Your task to perform on an android device: change keyboard looks Image 0: 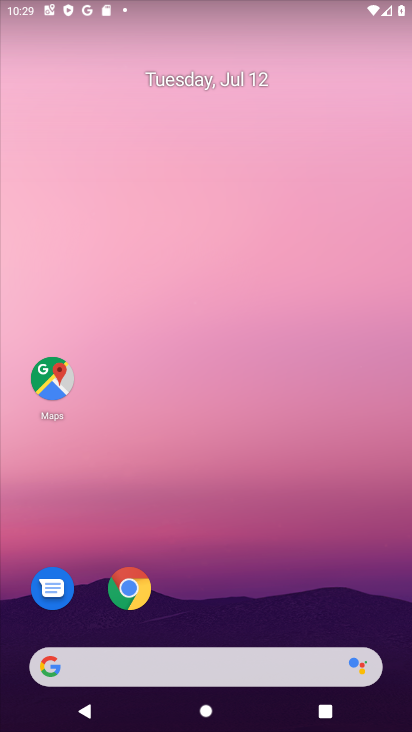
Step 0: drag from (231, 590) to (243, 14)
Your task to perform on an android device: change keyboard looks Image 1: 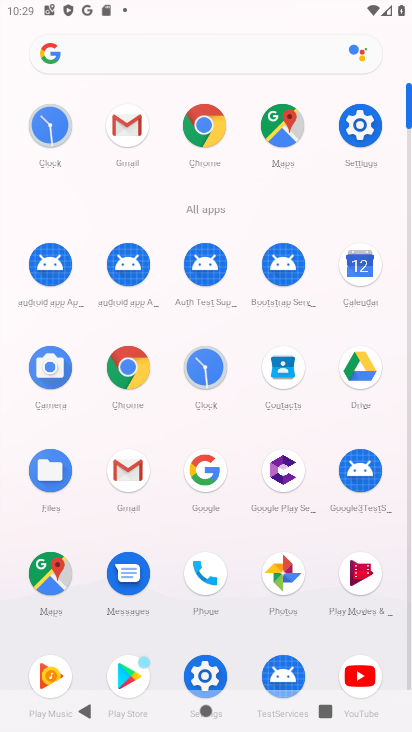
Step 1: click (202, 675)
Your task to perform on an android device: change keyboard looks Image 2: 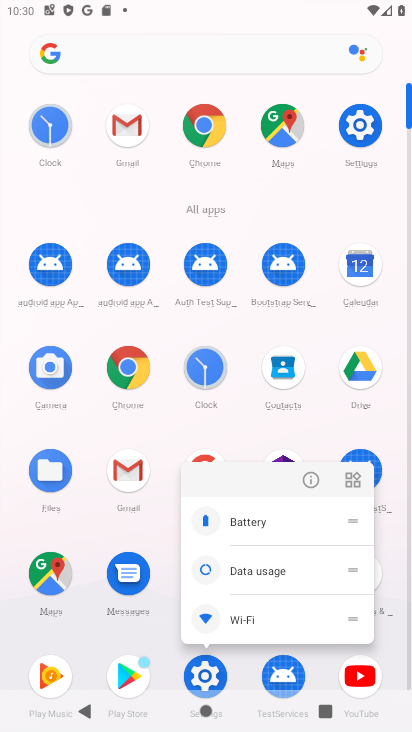
Step 2: click (191, 675)
Your task to perform on an android device: change keyboard looks Image 3: 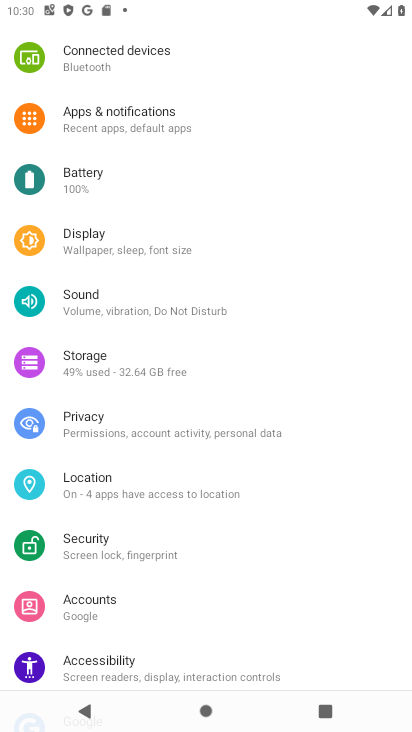
Step 3: drag from (179, 572) to (159, 136)
Your task to perform on an android device: change keyboard looks Image 4: 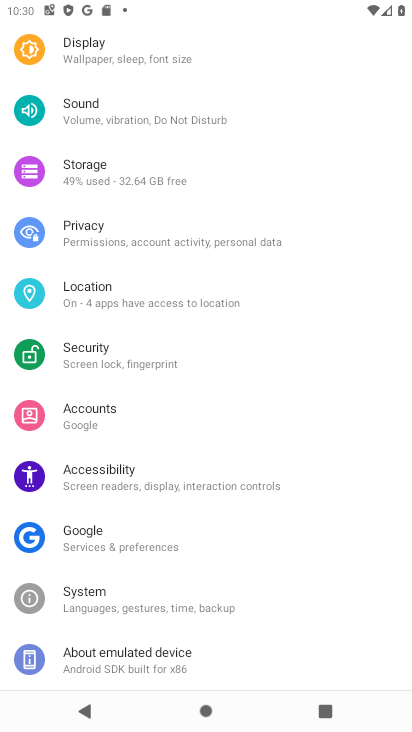
Step 4: click (79, 606)
Your task to perform on an android device: change keyboard looks Image 5: 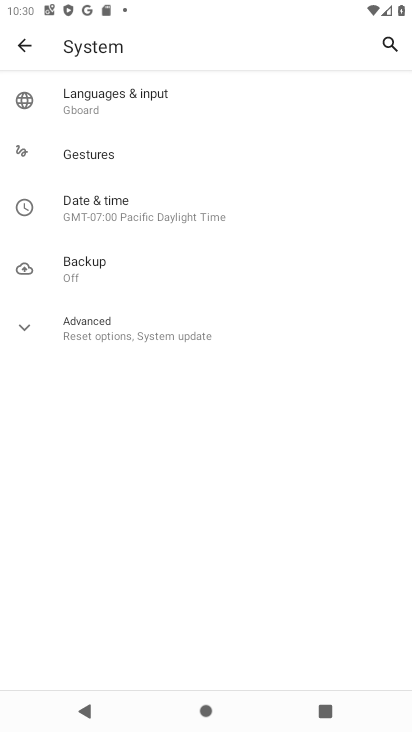
Step 5: click (91, 107)
Your task to perform on an android device: change keyboard looks Image 6: 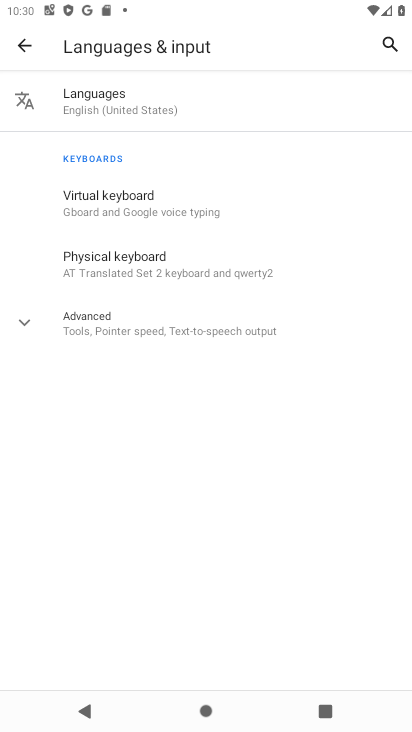
Step 6: click (110, 188)
Your task to perform on an android device: change keyboard looks Image 7: 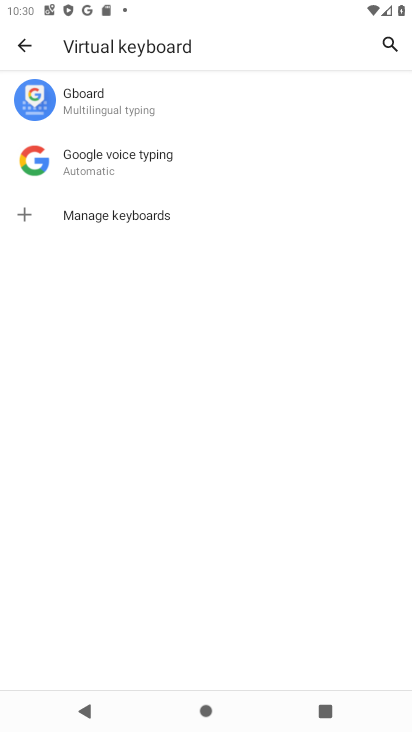
Step 7: click (101, 104)
Your task to perform on an android device: change keyboard looks Image 8: 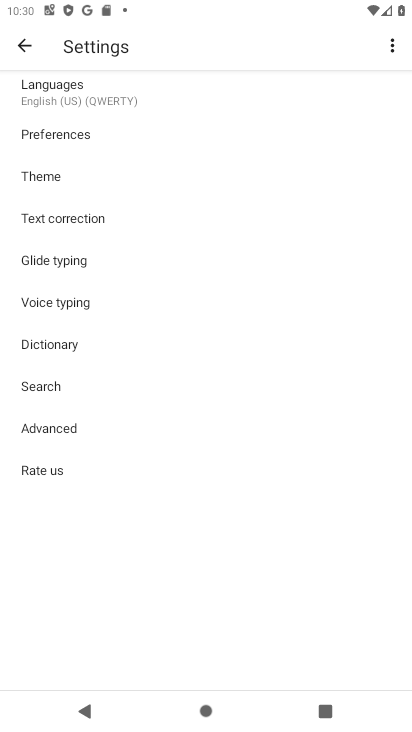
Step 8: click (41, 170)
Your task to perform on an android device: change keyboard looks Image 9: 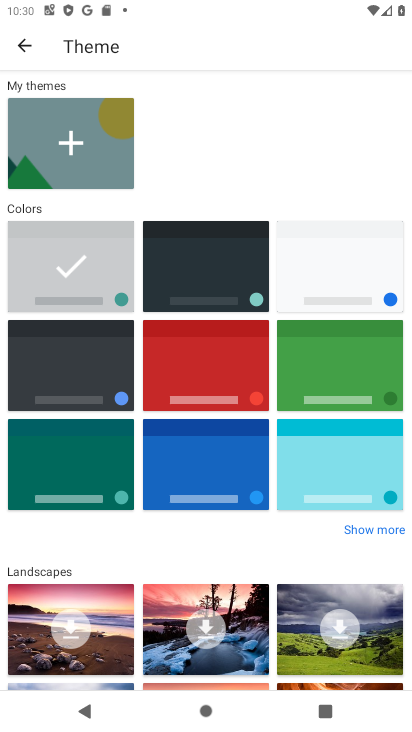
Step 9: click (329, 290)
Your task to perform on an android device: change keyboard looks Image 10: 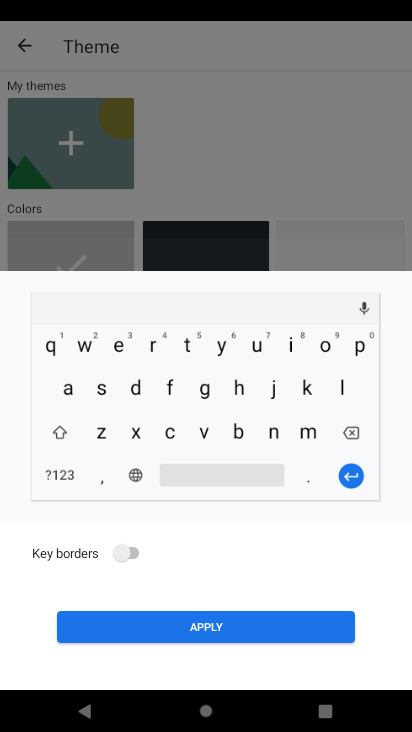
Step 10: click (118, 547)
Your task to perform on an android device: change keyboard looks Image 11: 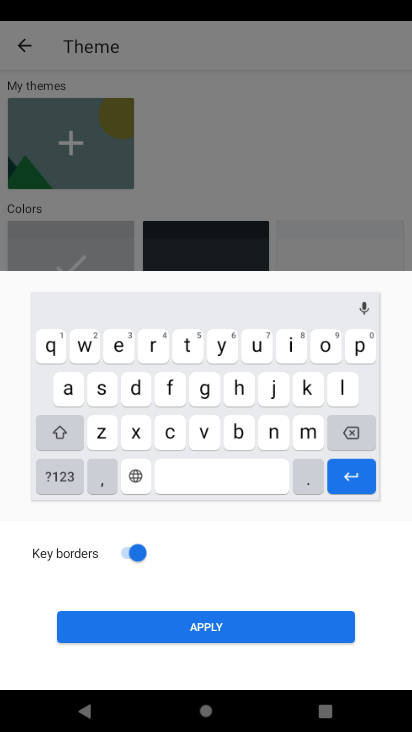
Step 11: click (167, 623)
Your task to perform on an android device: change keyboard looks Image 12: 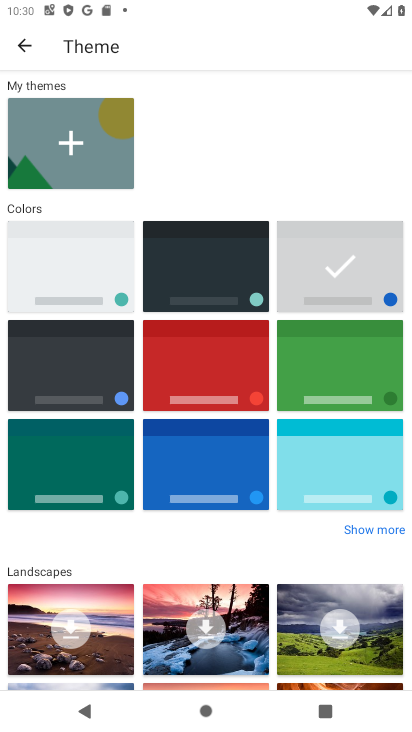
Step 12: task complete